Your task to perform on an android device: turn on bluetooth scan Image 0: 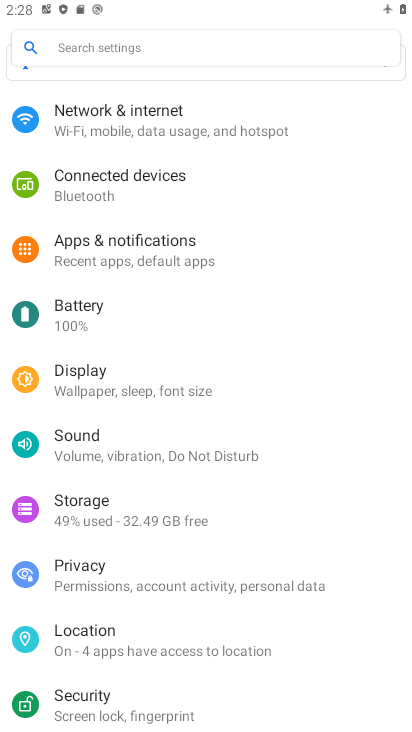
Step 0: click (92, 633)
Your task to perform on an android device: turn on bluetooth scan Image 1: 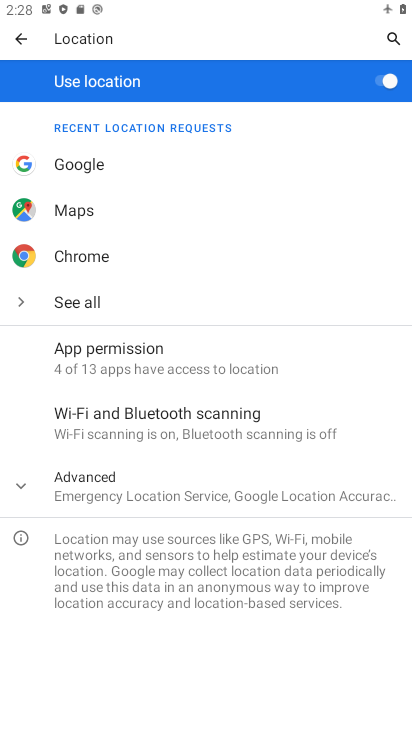
Step 1: click (30, 491)
Your task to perform on an android device: turn on bluetooth scan Image 2: 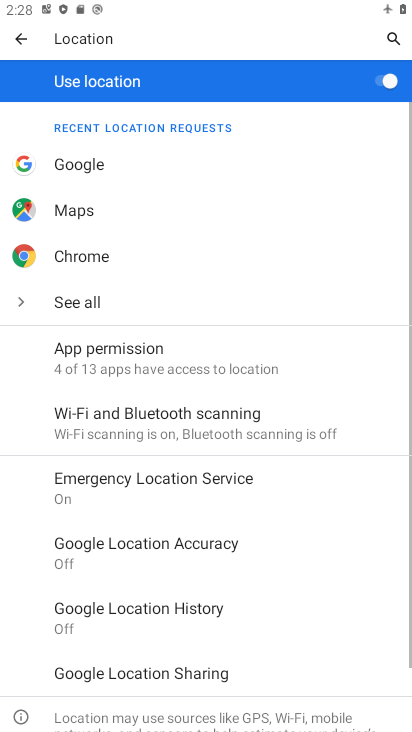
Step 2: click (131, 417)
Your task to perform on an android device: turn on bluetooth scan Image 3: 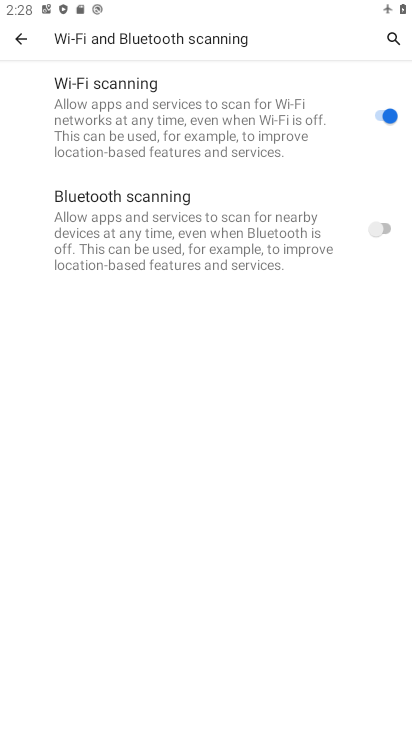
Step 3: click (384, 231)
Your task to perform on an android device: turn on bluetooth scan Image 4: 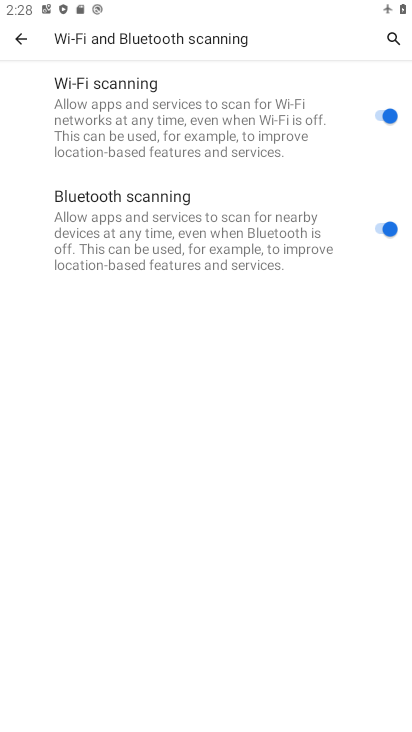
Step 4: task complete